Your task to perform on an android device: all mails in gmail Image 0: 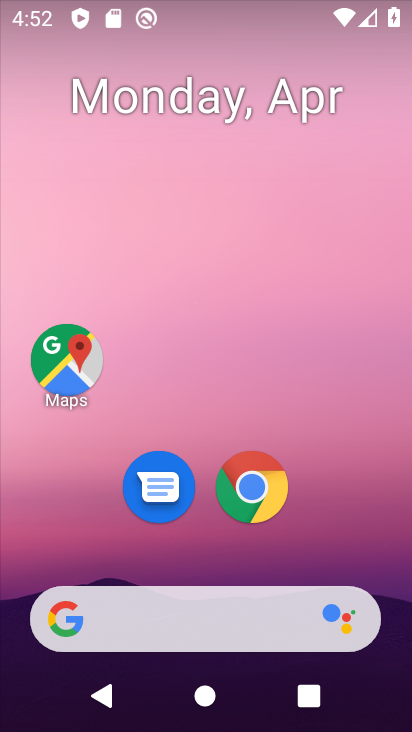
Step 0: drag from (386, 515) to (294, 171)
Your task to perform on an android device: all mails in gmail Image 1: 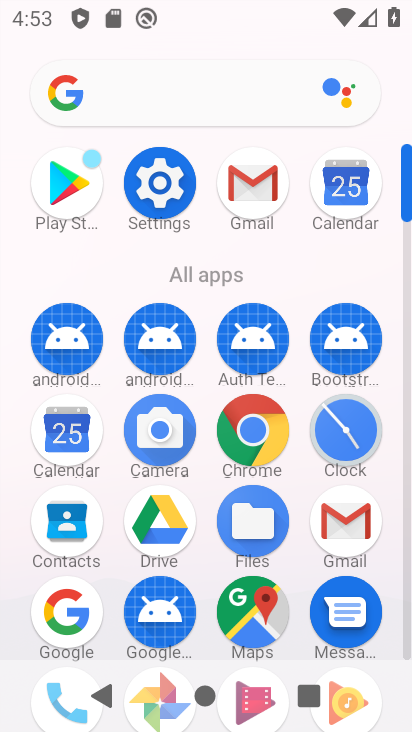
Step 1: click (256, 210)
Your task to perform on an android device: all mails in gmail Image 2: 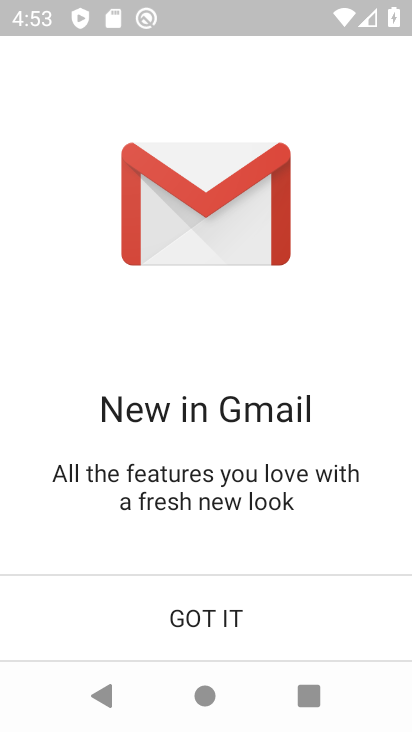
Step 2: click (257, 630)
Your task to perform on an android device: all mails in gmail Image 3: 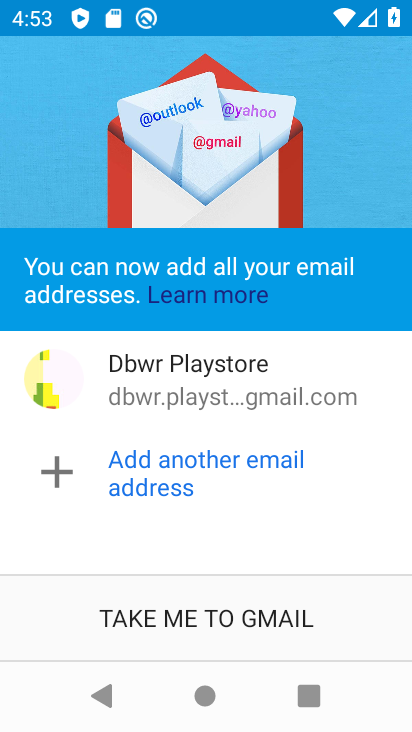
Step 3: click (257, 630)
Your task to perform on an android device: all mails in gmail Image 4: 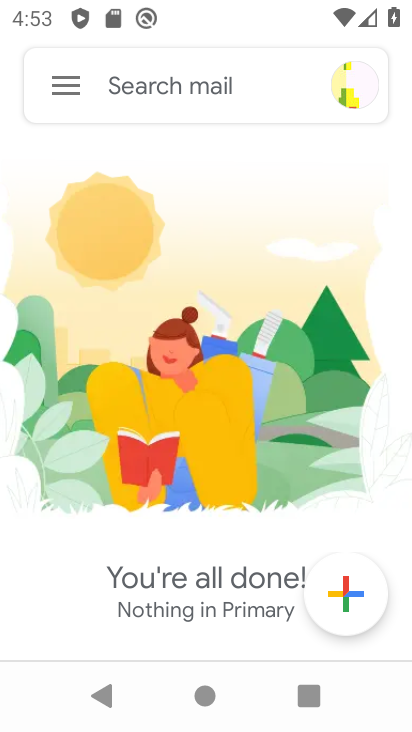
Step 4: click (66, 106)
Your task to perform on an android device: all mails in gmail Image 5: 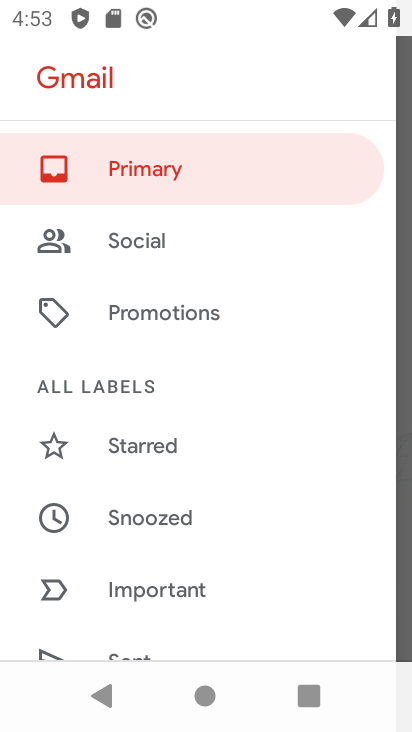
Step 5: drag from (195, 468) to (251, 191)
Your task to perform on an android device: all mails in gmail Image 6: 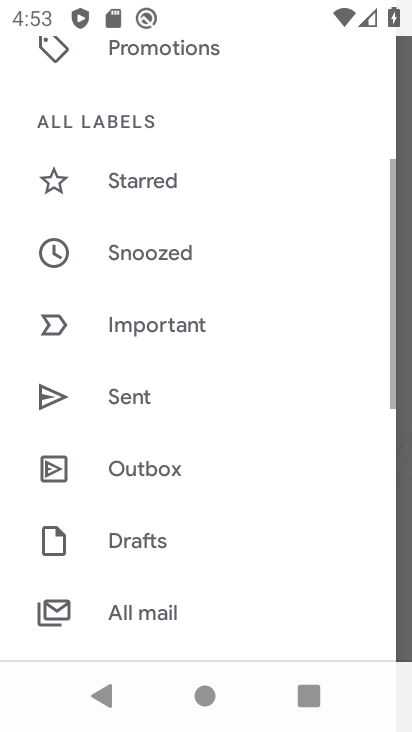
Step 6: drag from (292, 492) to (252, 209)
Your task to perform on an android device: all mails in gmail Image 7: 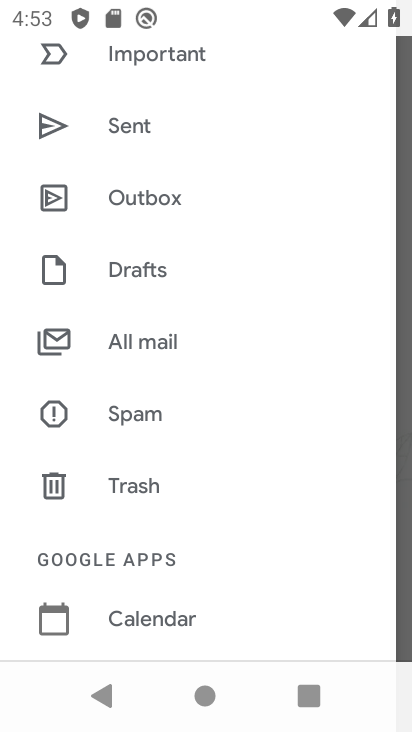
Step 7: click (240, 339)
Your task to perform on an android device: all mails in gmail Image 8: 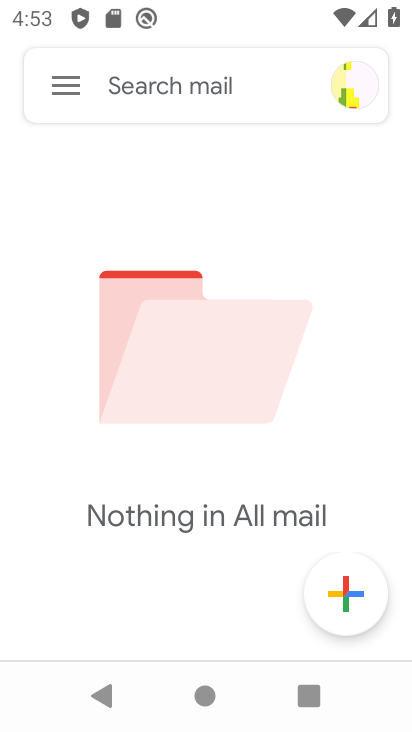
Step 8: task complete